Your task to perform on an android device: Open Wikipedia Image 0: 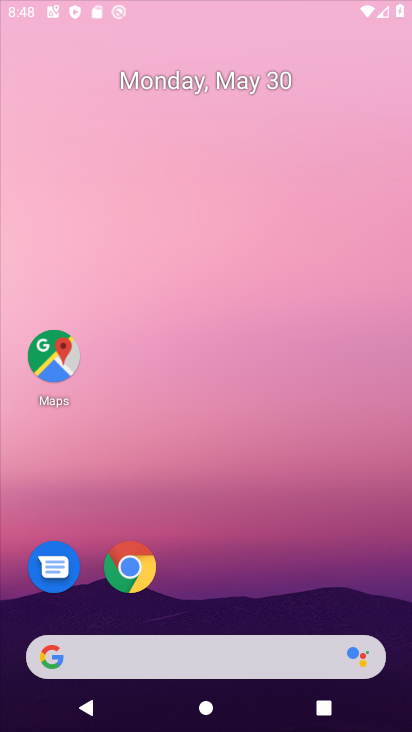
Step 0: click (204, 179)
Your task to perform on an android device: Open Wikipedia Image 1: 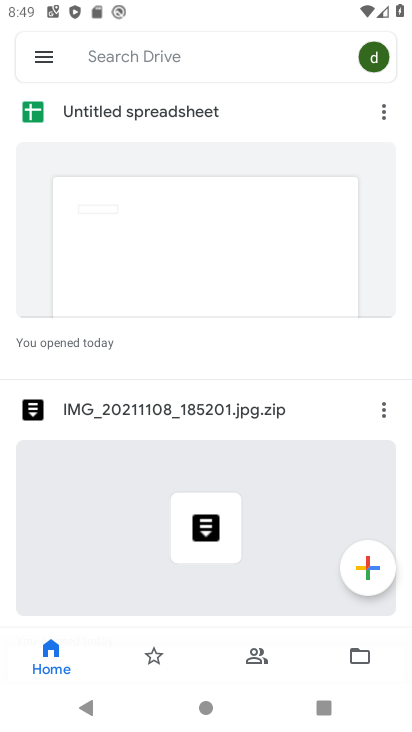
Step 1: press home button
Your task to perform on an android device: Open Wikipedia Image 2: 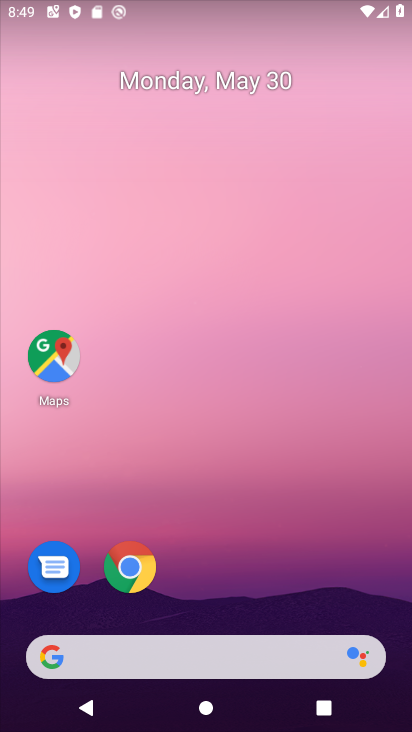
Step 2: drag from (259, 621) to (226, 188)
Your task to perform on an android device: Open Wikipedia Image 3: 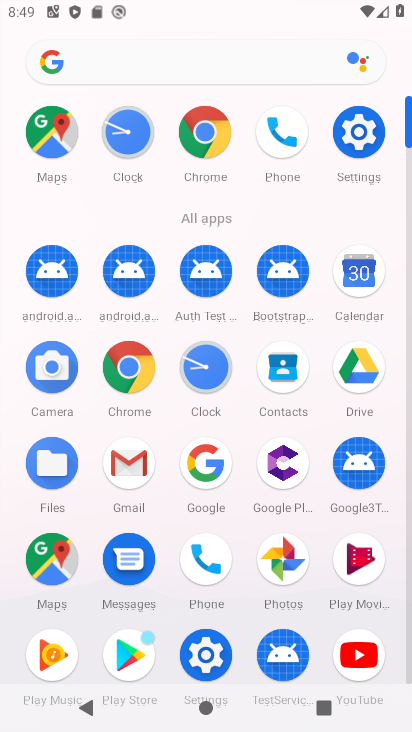
Step 3: click (215, 151)
Your task to perform on an android device: Open Wikipedia Image 4: 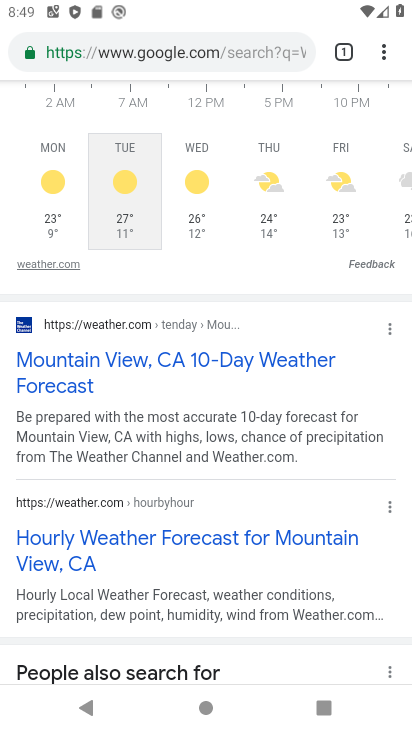
Step 4: click (343, 55)
Your task to perform on an android device: Open Wikipedia Image 5: 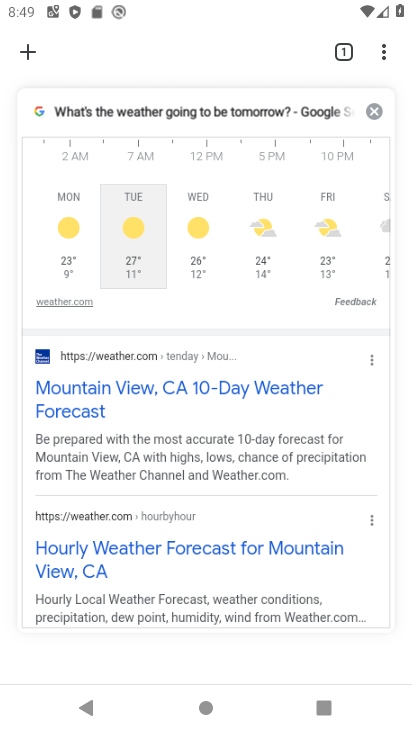
Step 5: click (33, 50)
Your task to perform on an android device: Open Wikipedia Image 6: 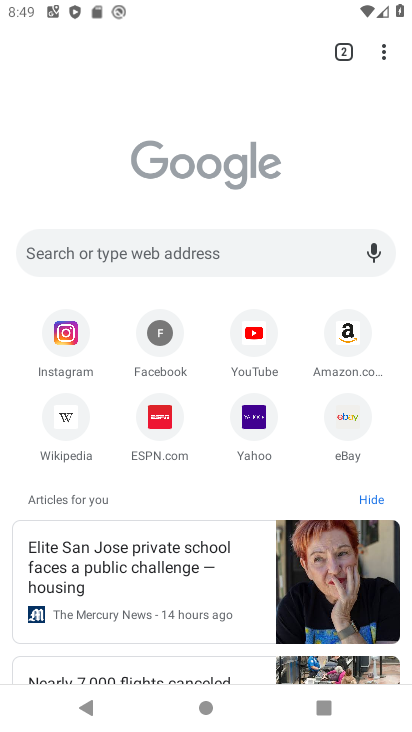
Step 6: click (68, 431)
Your task to perform on an android device: Open Wikipedia Image 7: 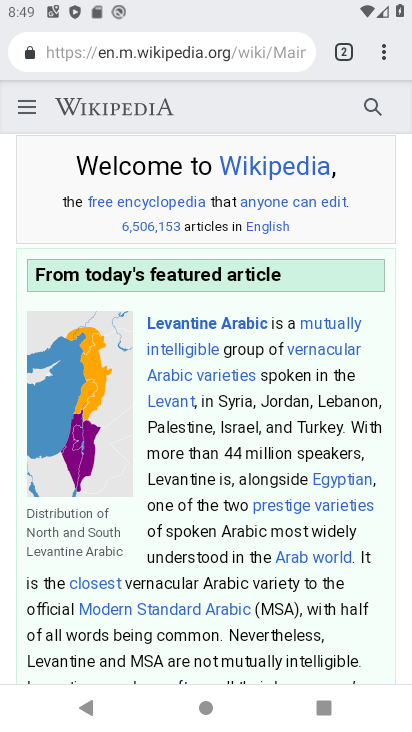
Step 7: task complete